Your task to perform on an android device: turn notification dots on Image 0: 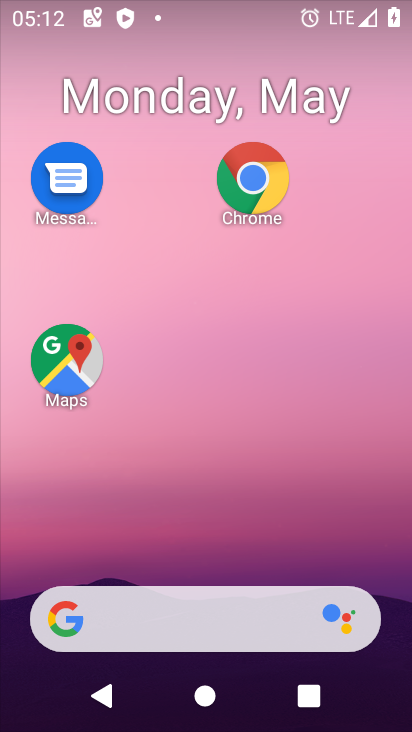
Step 0: drag from (209, 579) to (155, 88)
Your task to perform on an android device: turn notification dots on Image 1: 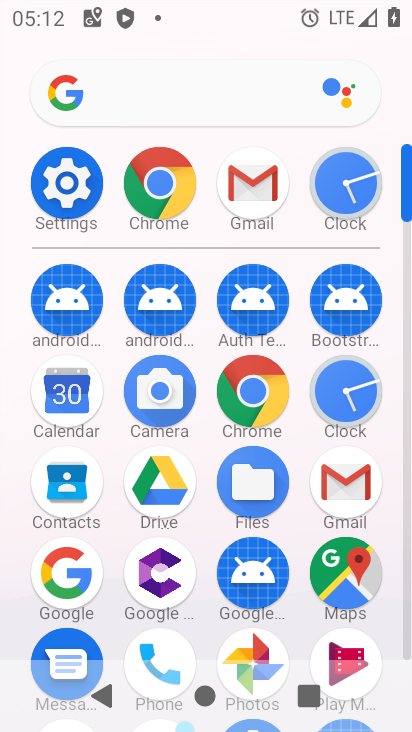
Step 1: click (63, 191)
Your task to perform on an android device: turn notification dots on Image 2: 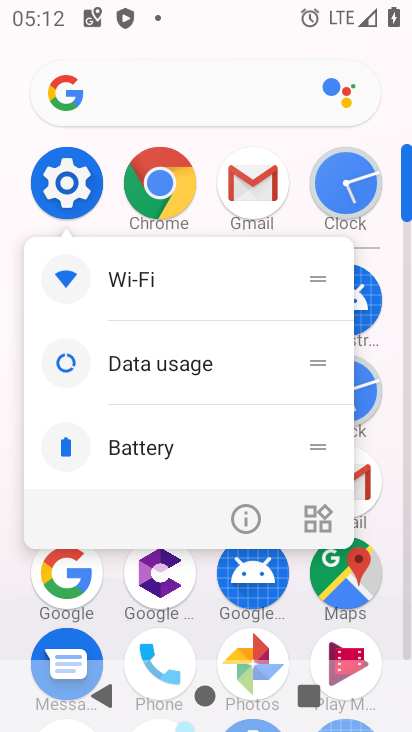
Step 2: click (62, 182)
Your task to perform on an android device: turn notification dots on Image 3: 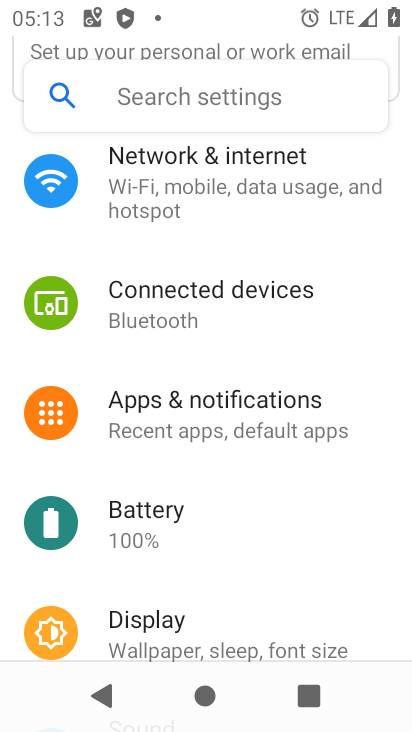
Step 3: click (173, 414)
Your task to perform on an android device: turn notification dots on Image 4: 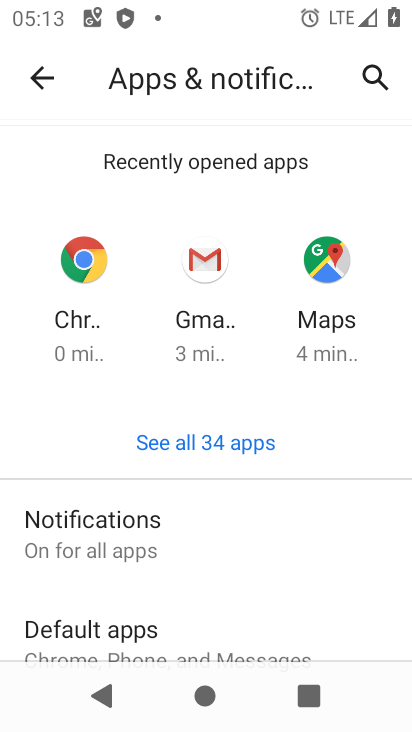
Step 4: click (102, 540)
Your task to perform on an android device: turn notification dots on Image 5: 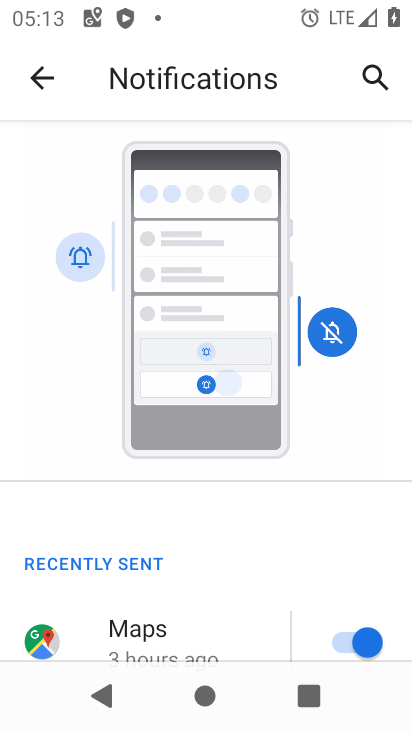
Step 5: drag from (146, 612) to (206, 167)
Your task to perform on an android device: turn notification dots on Image 6: 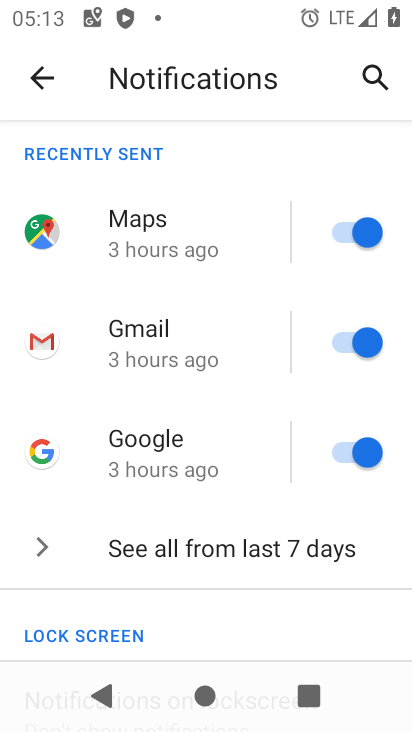
Step 6: drag from (167, 574) to (189, 122)
Your task to perform on an android device: turn notification dots on Image 7: 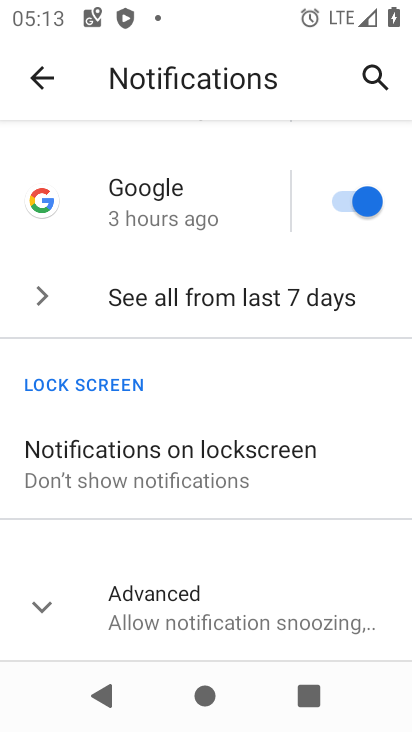
Step 7: click (150, 616)
Your task to perform on an android device: turn notification dots on Image 8: 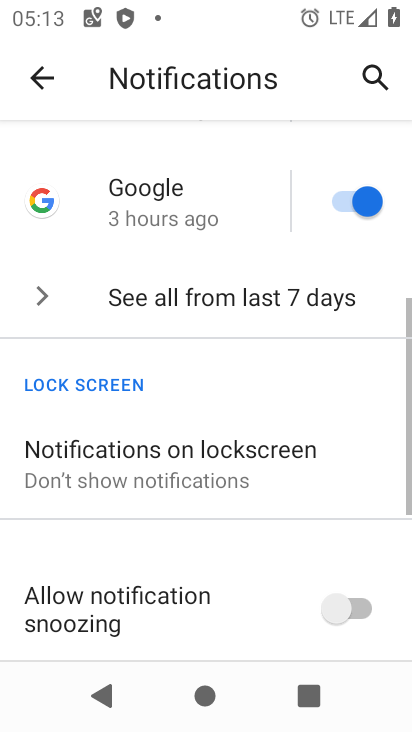
Step 8: task complete